Your task to perform on an android device: turn on wifi Image 0: 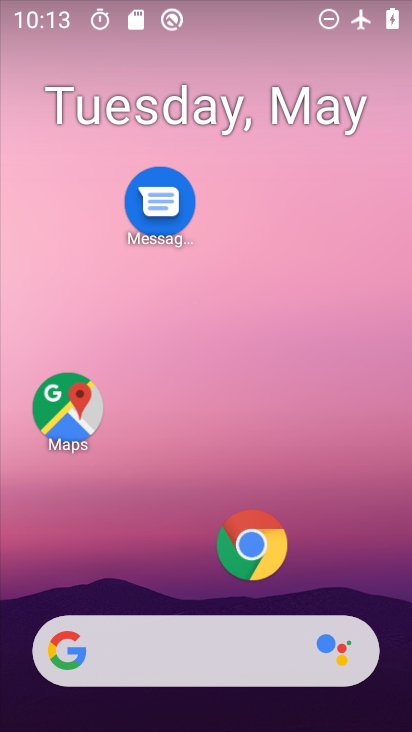
Step 0: drag from (192, 595) to (221, 112)
Your task to perform on an android device: turn on wifi Image 1: 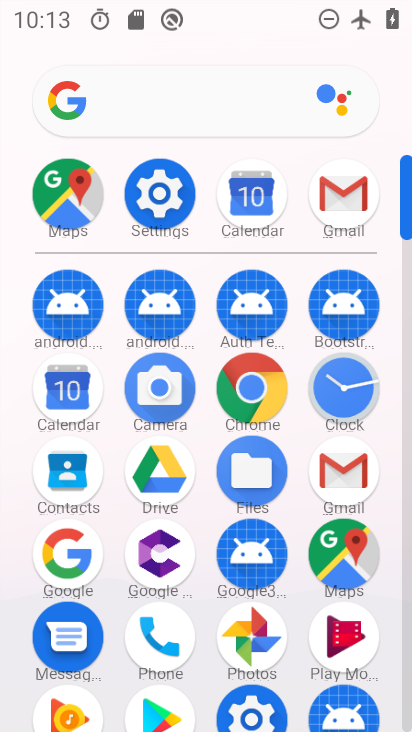
Step 1: click (182, 193)
Your task to perform on an android device: turn on wifi Image 2: 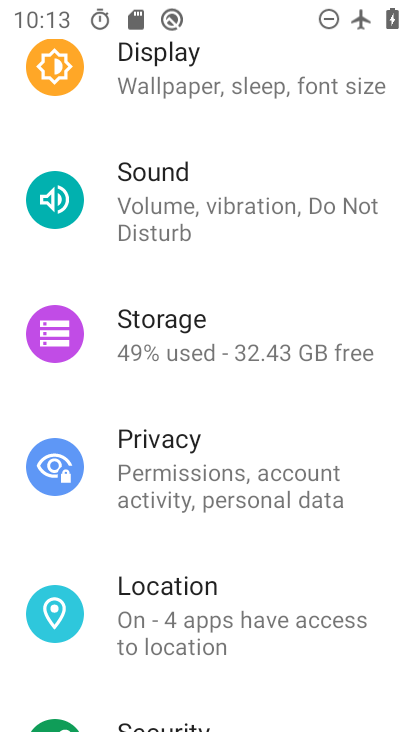
Step 2: drag from (233, 148) to (245, 527)
Your task to perform on an android device: turn on wifi Image 3: 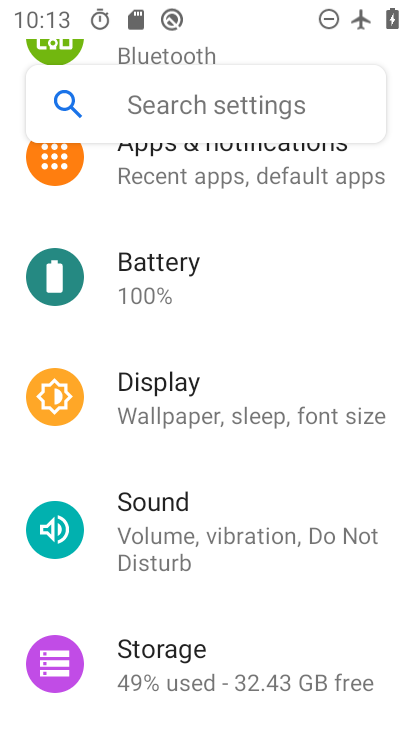
Step 3: drag from (226, 211) to (218, 610)
Your task to perform on an android device: turn on wifi Image 4: 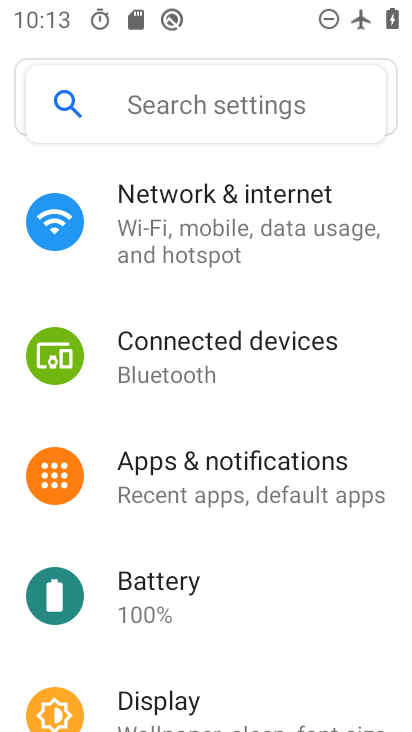
Step 4: drag from (241, 211) to (263, 467)
Your task to perform on an android device: turn on wifi Image 5: 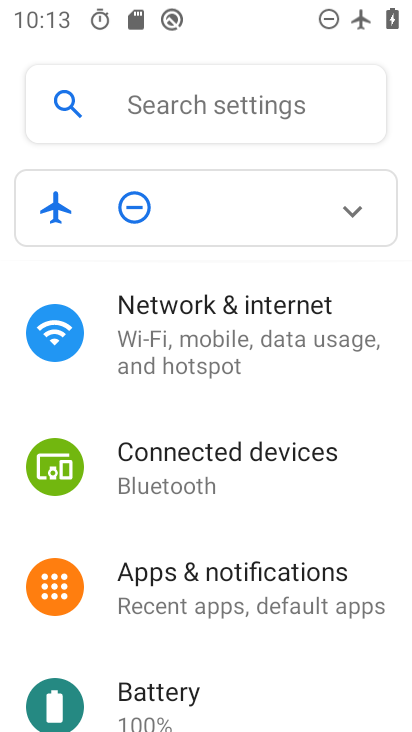
Step 5: click (233, 368)
Your task to perform on an android device: turn on wifi Image 6: 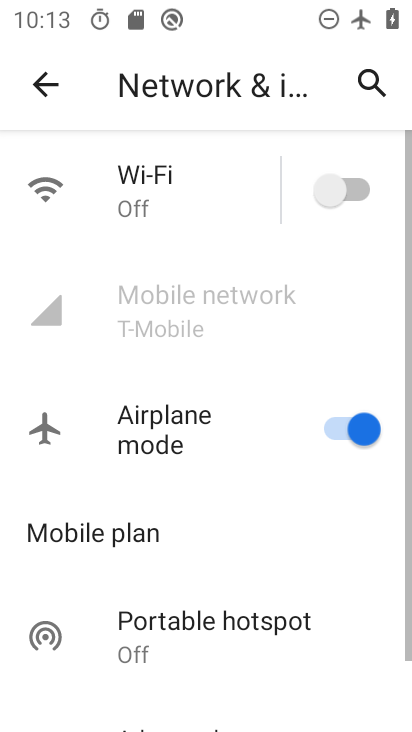
Step 6: click (362, 202)
Your task to perform on an android device: turn on wifi Image 7: 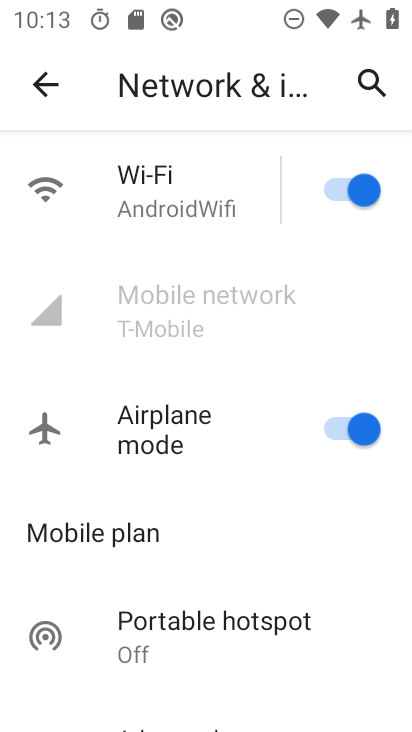
Step 7: task complete